Your task to perform on an android device: Open Google Maps and go to "Timeline" Image 0: 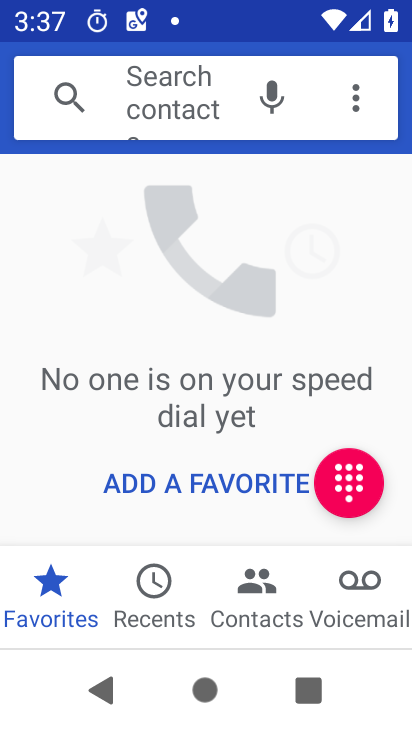
Step 0: press home button
Your task to perform on an android device: Open Google Maps and go to "Timeline" Image 1: 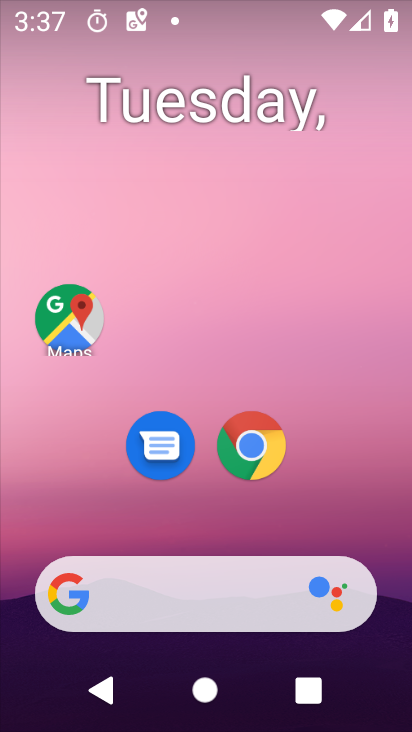
Step 1: drag from (227, 552) to (180, 44)
Your task to perform on an android device: Open Google Maps and go to "Timeline" Image 2: 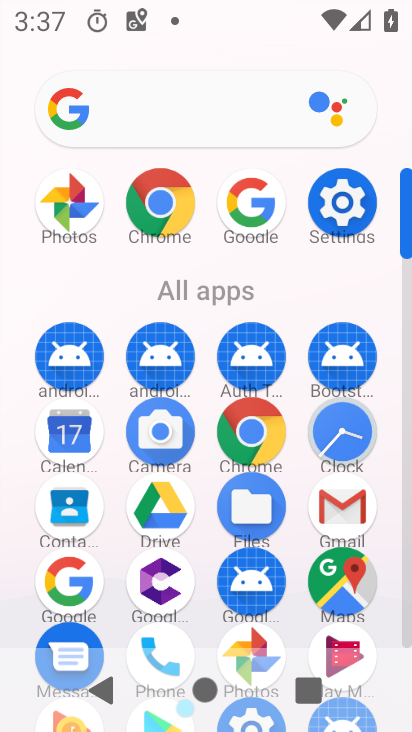
Step 2: click (337, 570)
Your task to perform on an android device: Open Google Maps and go to "Timeline" Image 3: 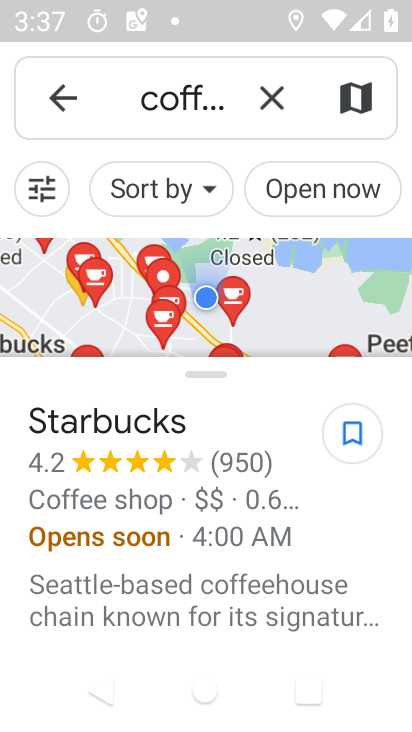
Step 3: click (43, 87)
Your task to perform on an android device: Open Google Maps and go to "Timeline" Image 4: 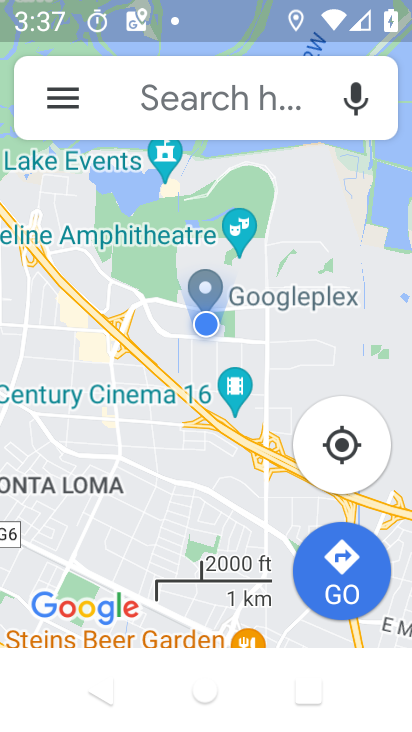
Step 4: click (43, 87)
Your task to perform on an android device: Open Google Maps and go to "Timeline" Image 5: 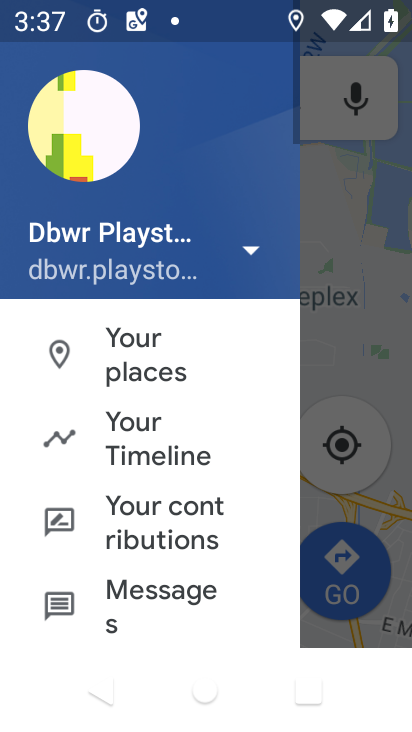
Step 5: click (145, 421)
Your task to perform on an android device: Open Google Maps and go to "Timeline" Image 6: 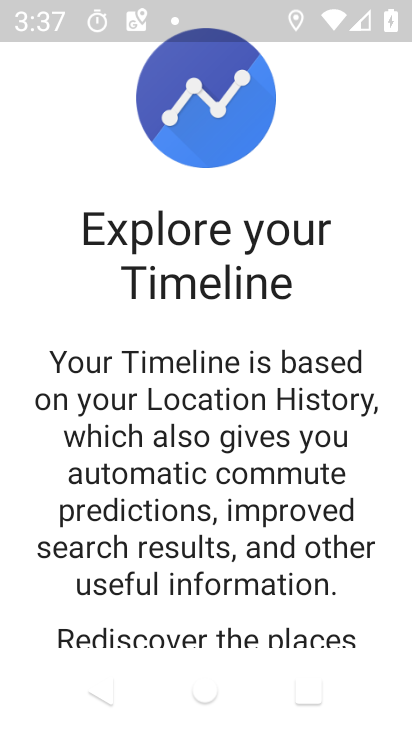
Step 6: drag from (279, 557) to (216, 111)
Your task to perform on an android device: Open Google Maps and go to "Timeline" Image 7: 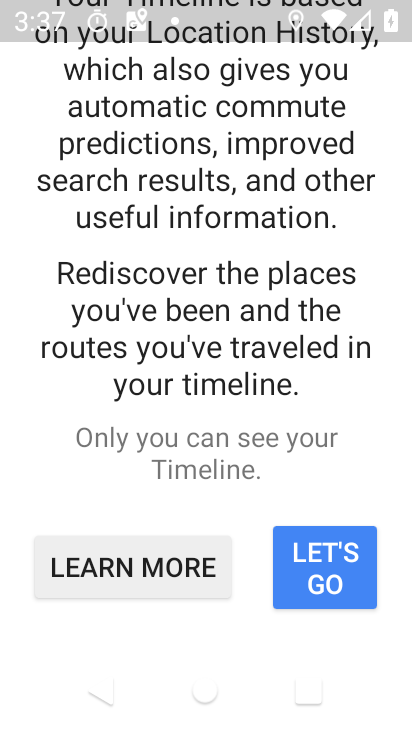
Step 7: click (288, 565)
Your task to perform on an android device: Open Google Maps and go to "Timeline" Image 8: 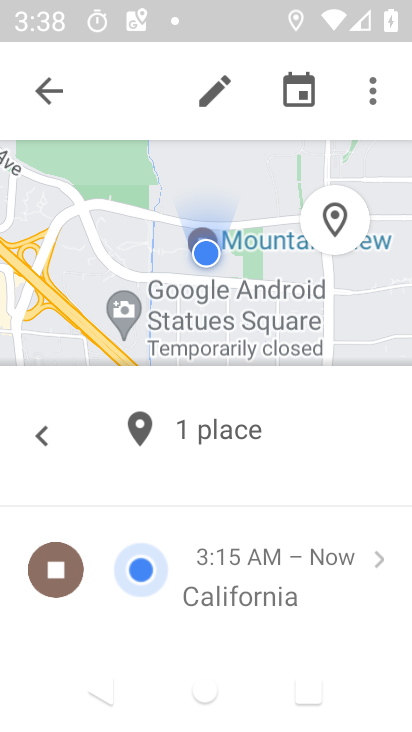
Step 8: task complete